Your task to perform on an android device: Go to wifi settings Image 0: 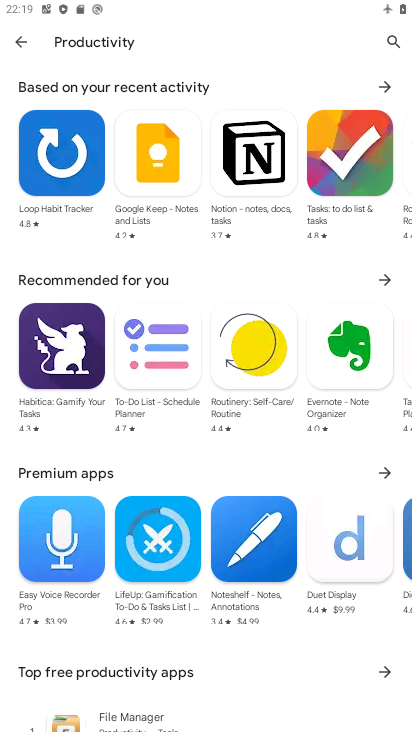
Step 0: press home button
Your task to perform on an android device: Go to wifi settings Image 1: 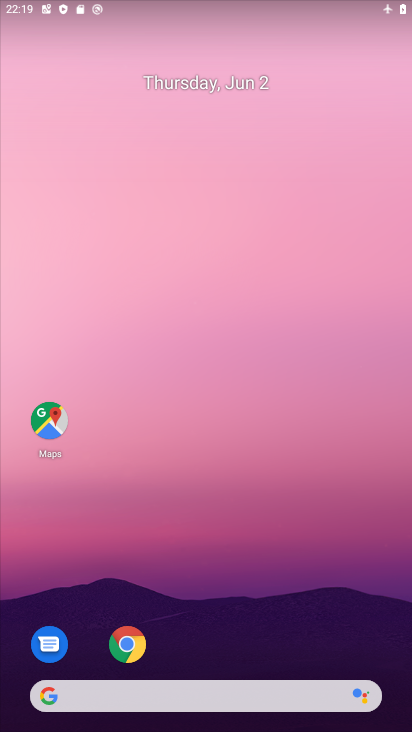
Step 1: drag from (193, 653) to (200, 211)
Your task to perform on an android device: Go to wifi settings Image 2: 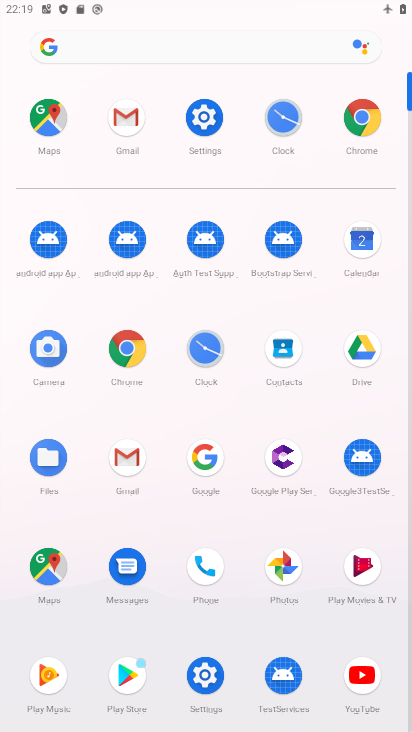
Step 2: click (200, 120)
Your task to perform on an android device: Go to wifi settings Image 3: 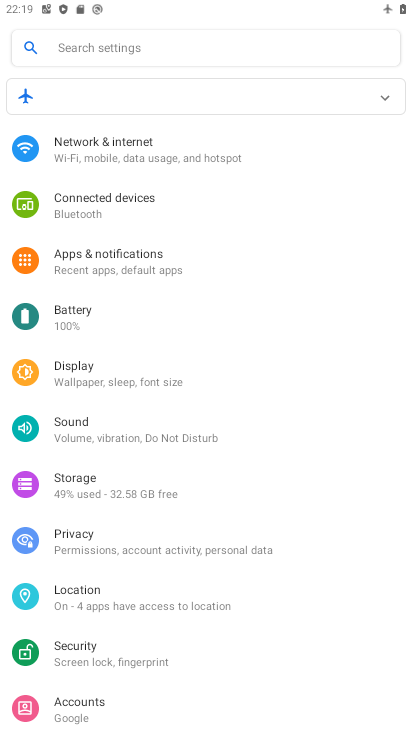
Step 3: click (153, 152)
Your task to perform on an android device: Go to wifi settings Image 4: 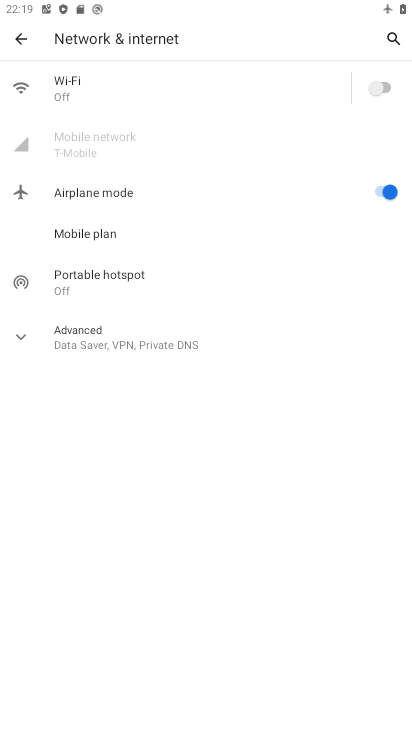
Step 4: click (102, 84)
Your task to perform on an android device: Go to wifi settings Image 5: 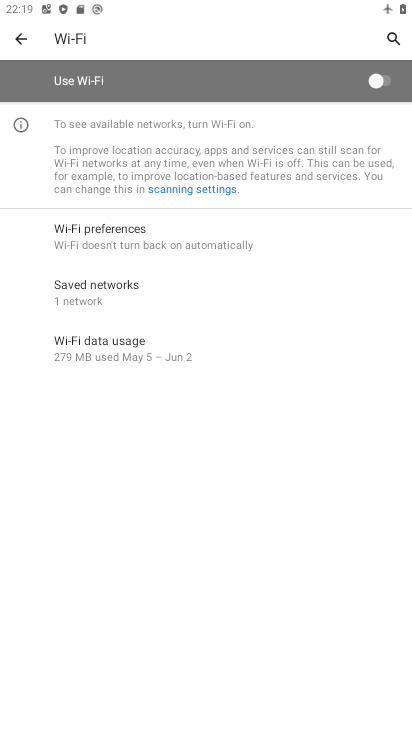
Step 5: task complete